Your task to perform on an android device: Go to Reddit.com Image 0: 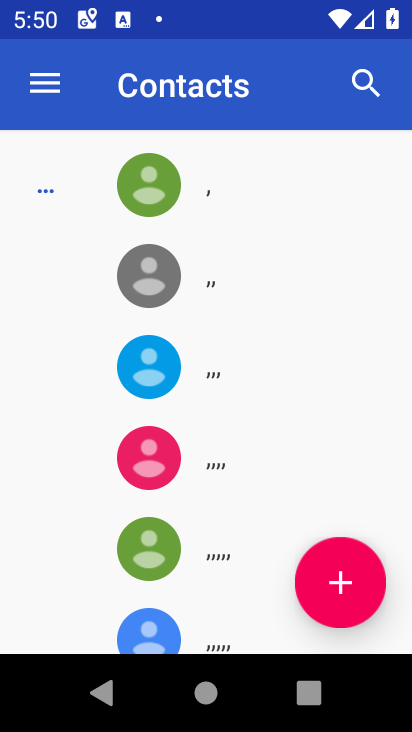
Step 0: press home button
Your task to perform on an android device: Go to Reddit.com Image 1: 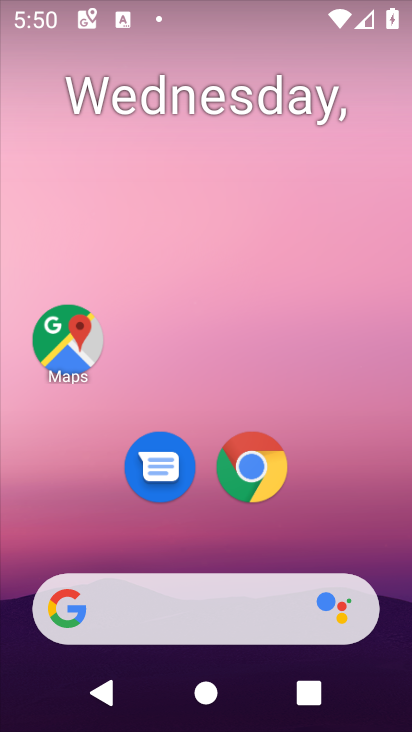
Step 1: click (275, 465)
Your task to perform on an android device: Go to Reddit.com Image 2: 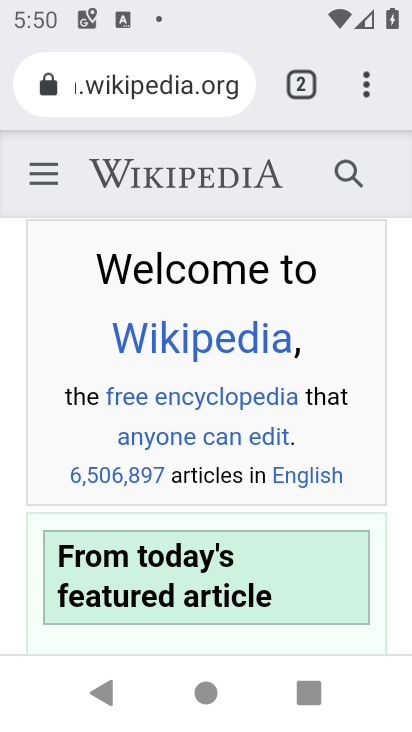
Step 2: click (292, 84)
Your task to perform on an android device: Go to Reddit.com Image 3: 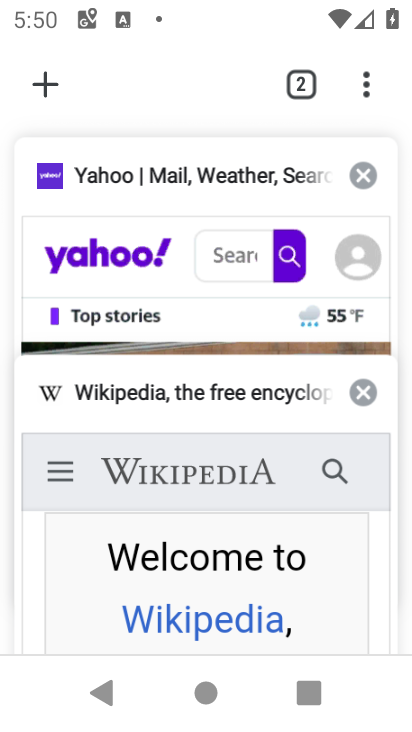
Step 3: click (34, 95)
Your task to perform on an android device: Go to Reddit.com Image 4: 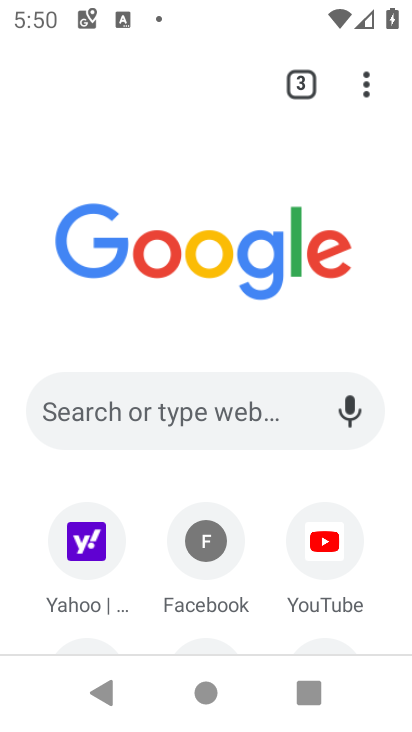
Step 4: click (192, 395)
Your task to perform on an android device: Go to Reddit.com Image 5: 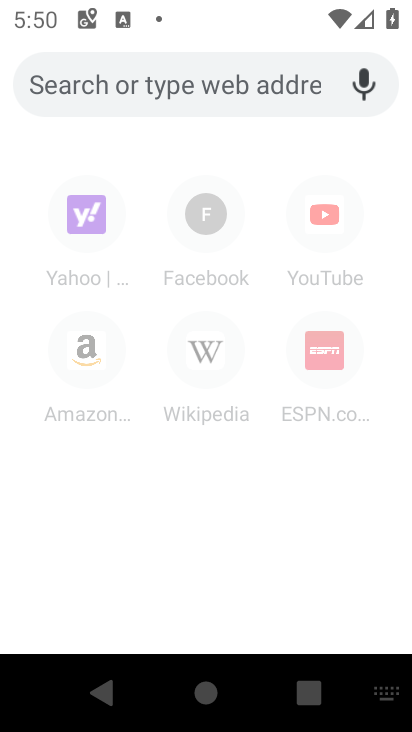
Step 5: type "Reddit.com"
Your task to perform on an android device: Go to Reddit.com Image 6: 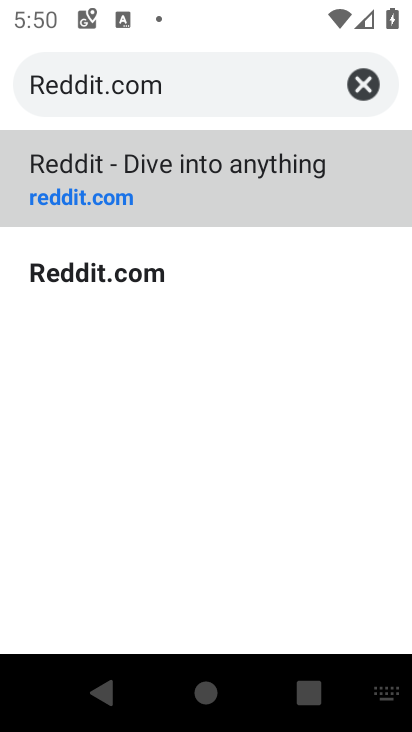
Step 6: click (212, 171)
Your task to perform on an android device: Go to Reddit.com Image 7: 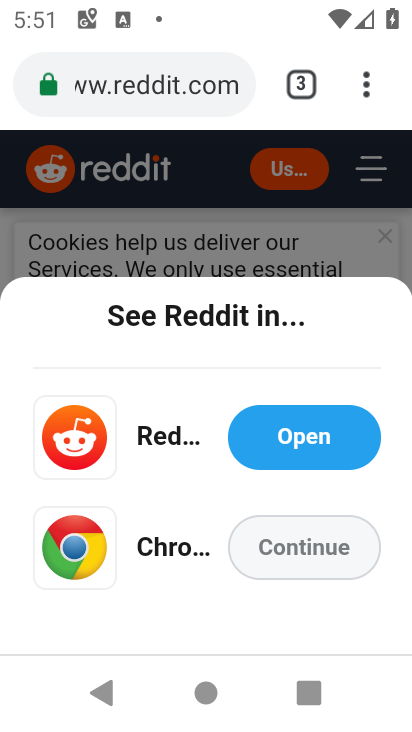
Step 7: task complete